Your task to perform on an android device: turn on translation in the chrome app Image 0: 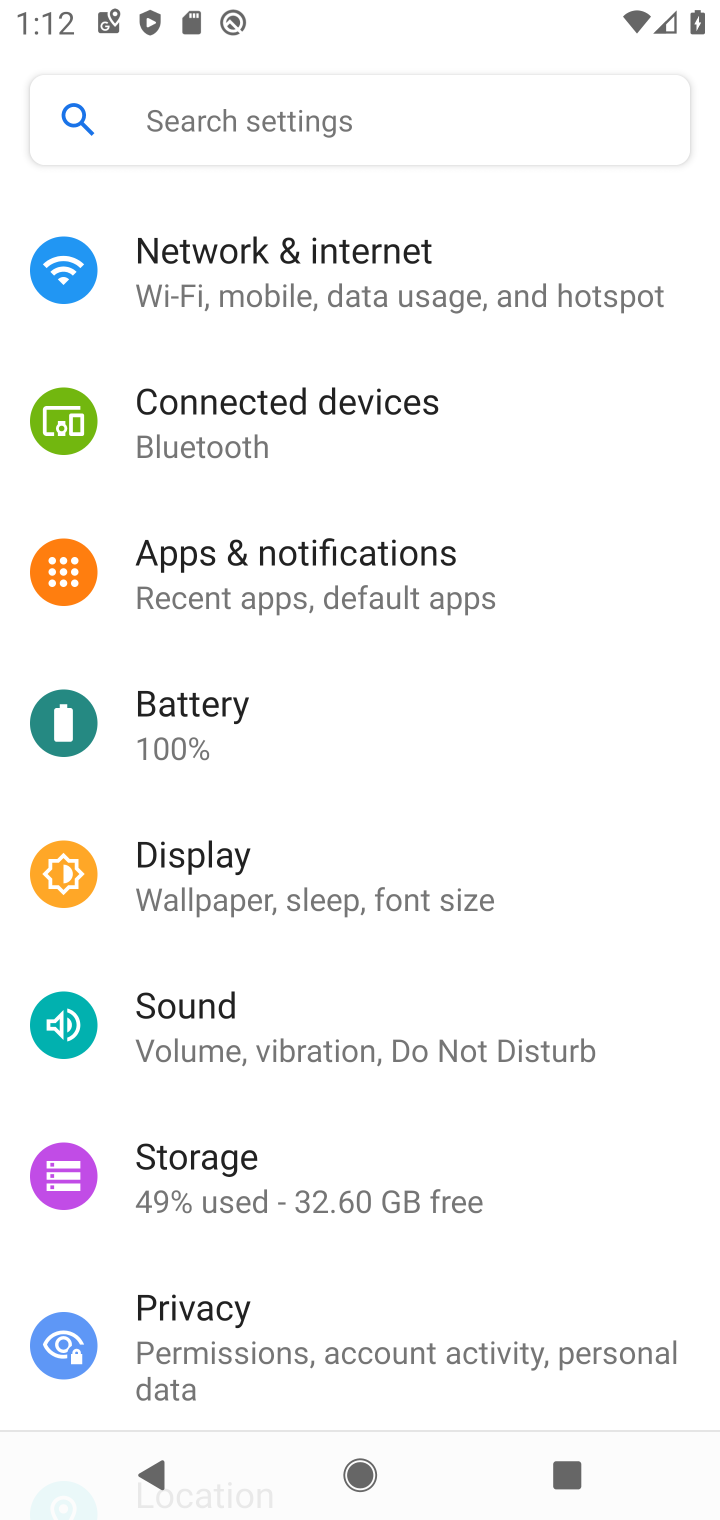
Step 0: press back button
Your task to perform on an android device: turn on translation in the chrome app Image 1: 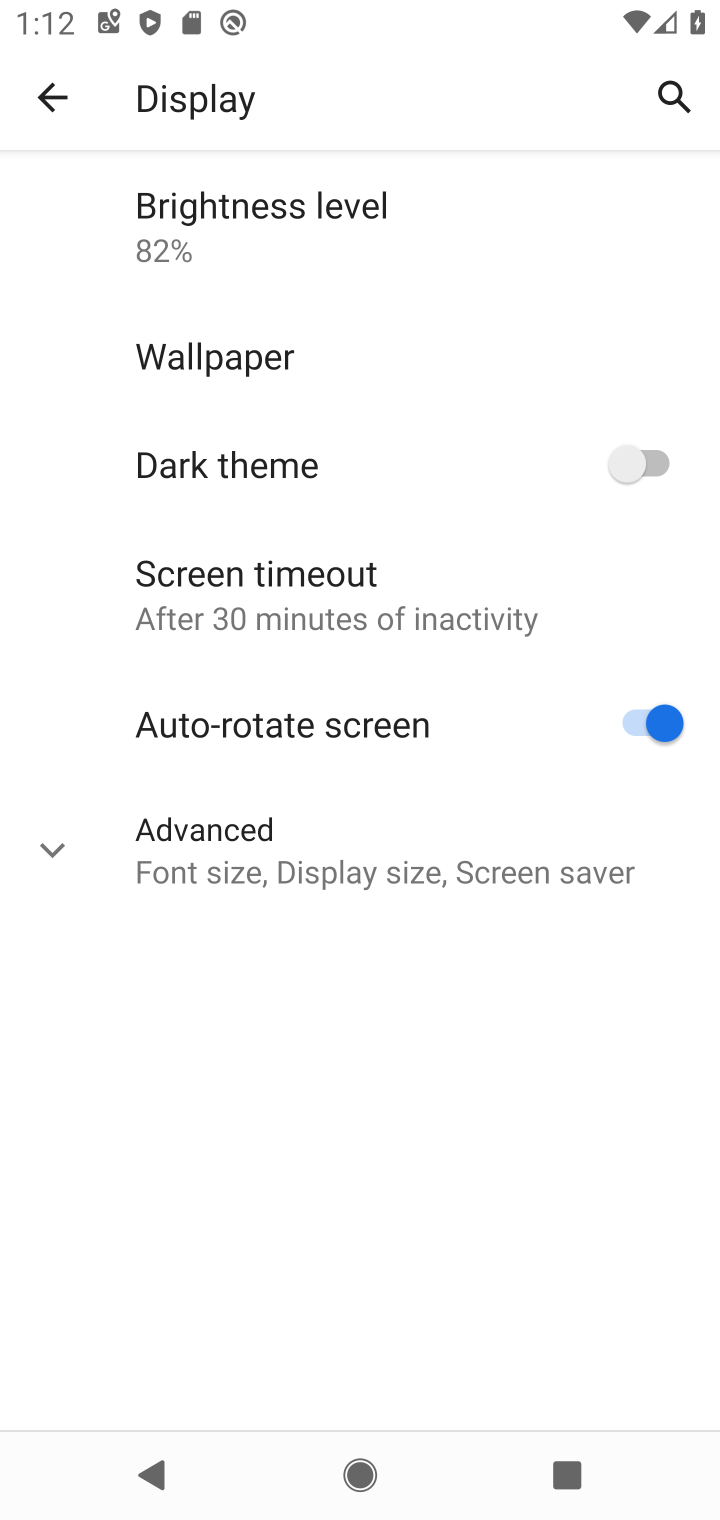
Step 1: press back button
Your task to perform on an android device: turn on translation in the chrome app Image 2: 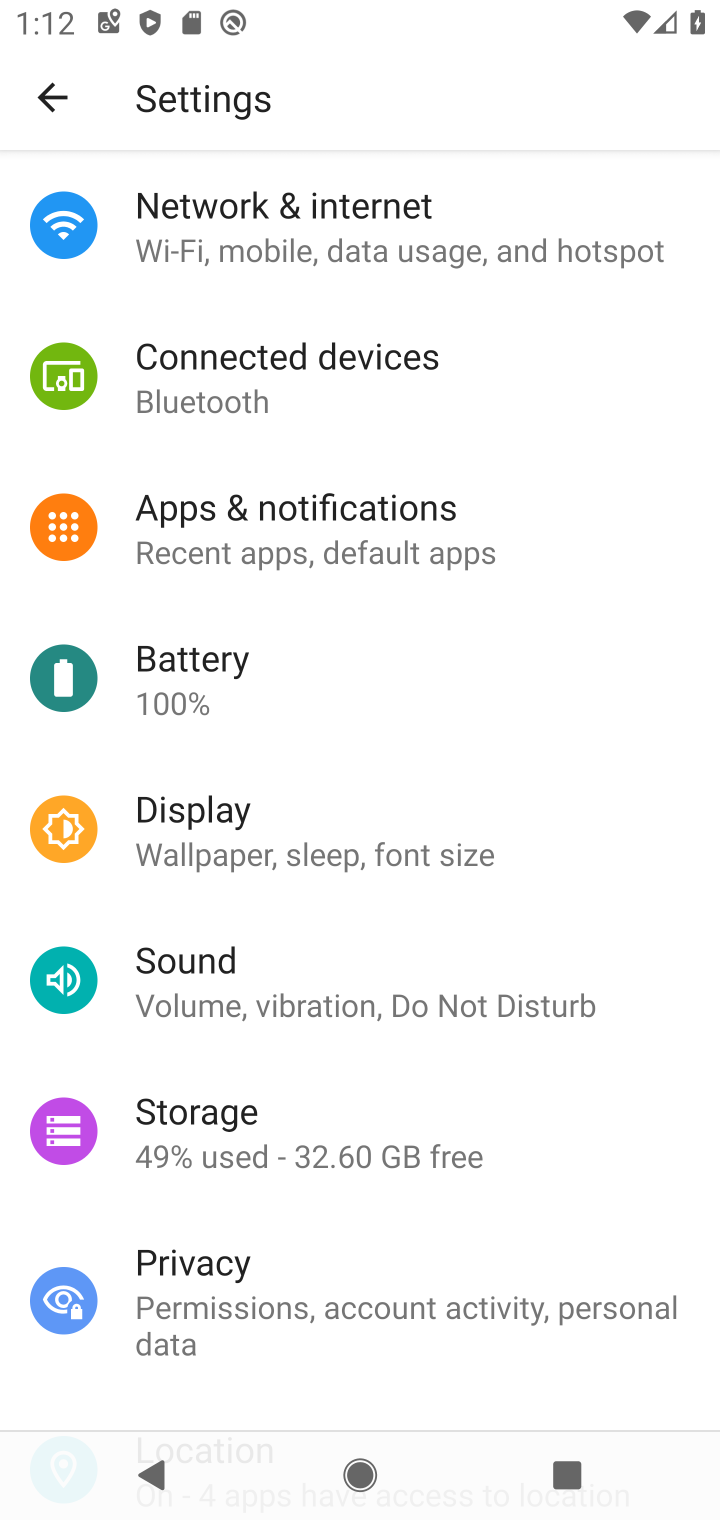
Step 2: press back button
Your task to perform on an android device: turn on translation in the chrome app Image 3: 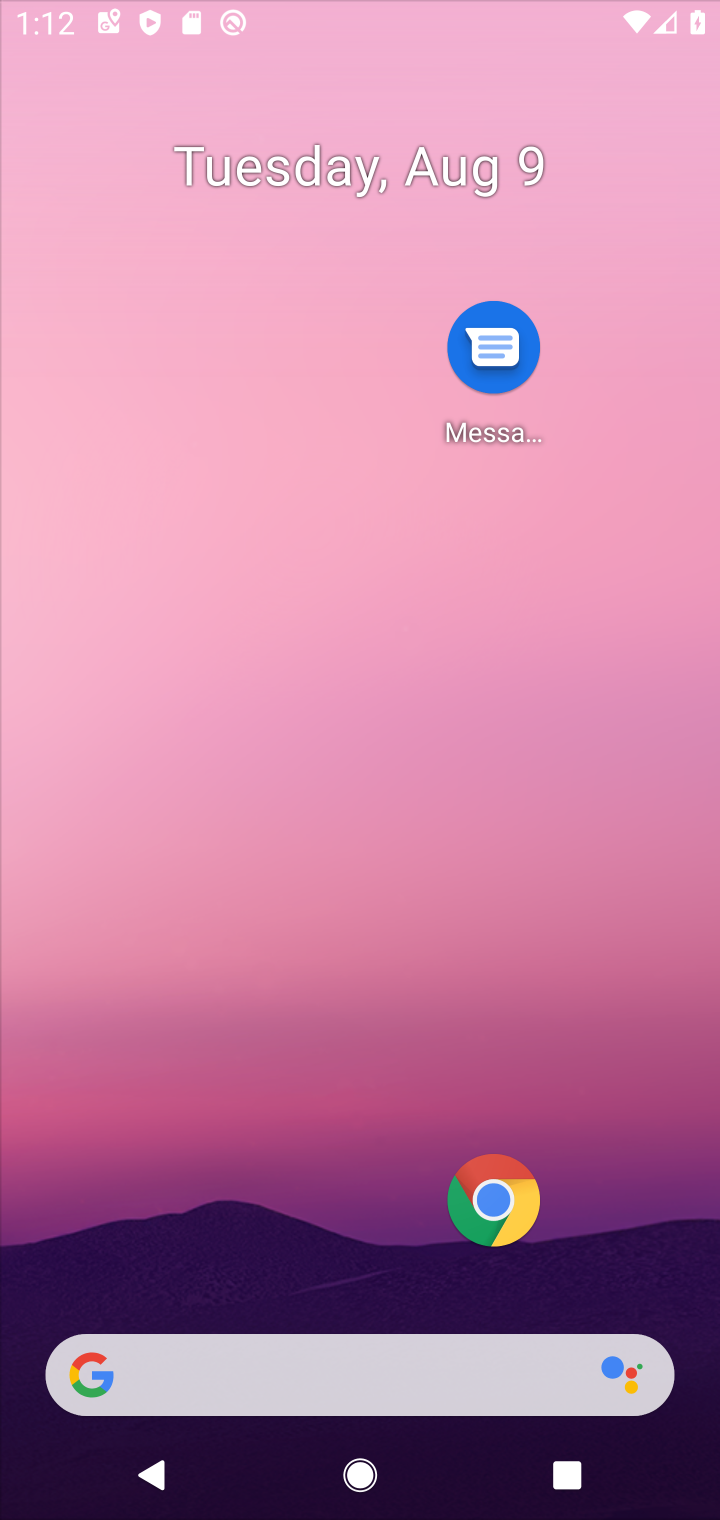
Step 3: press back button
Your task to perform on an android device: turn on translation in the chrome app Image 4: 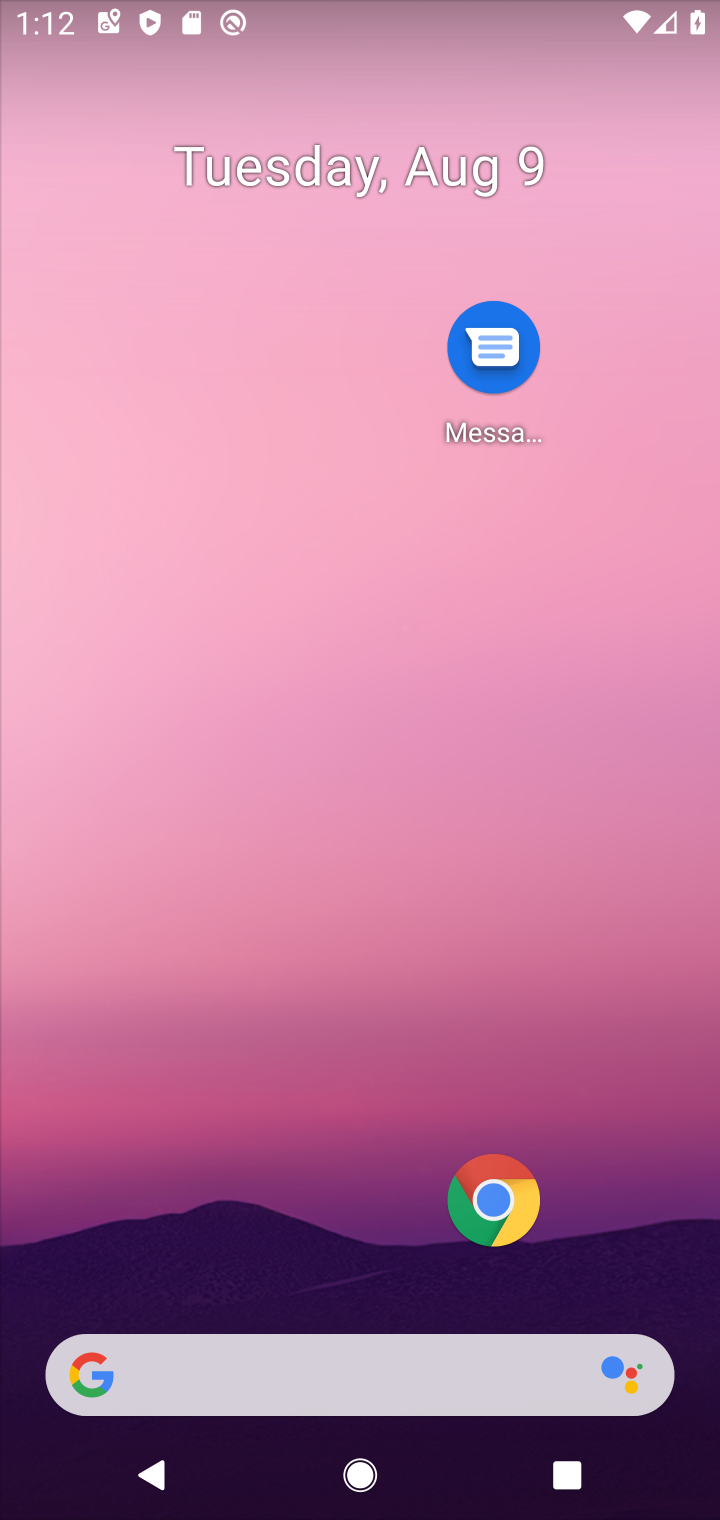
Step 4: click (482, 1184)
Your task to perform on an android device: turn on translation in the chrome app Image 5: 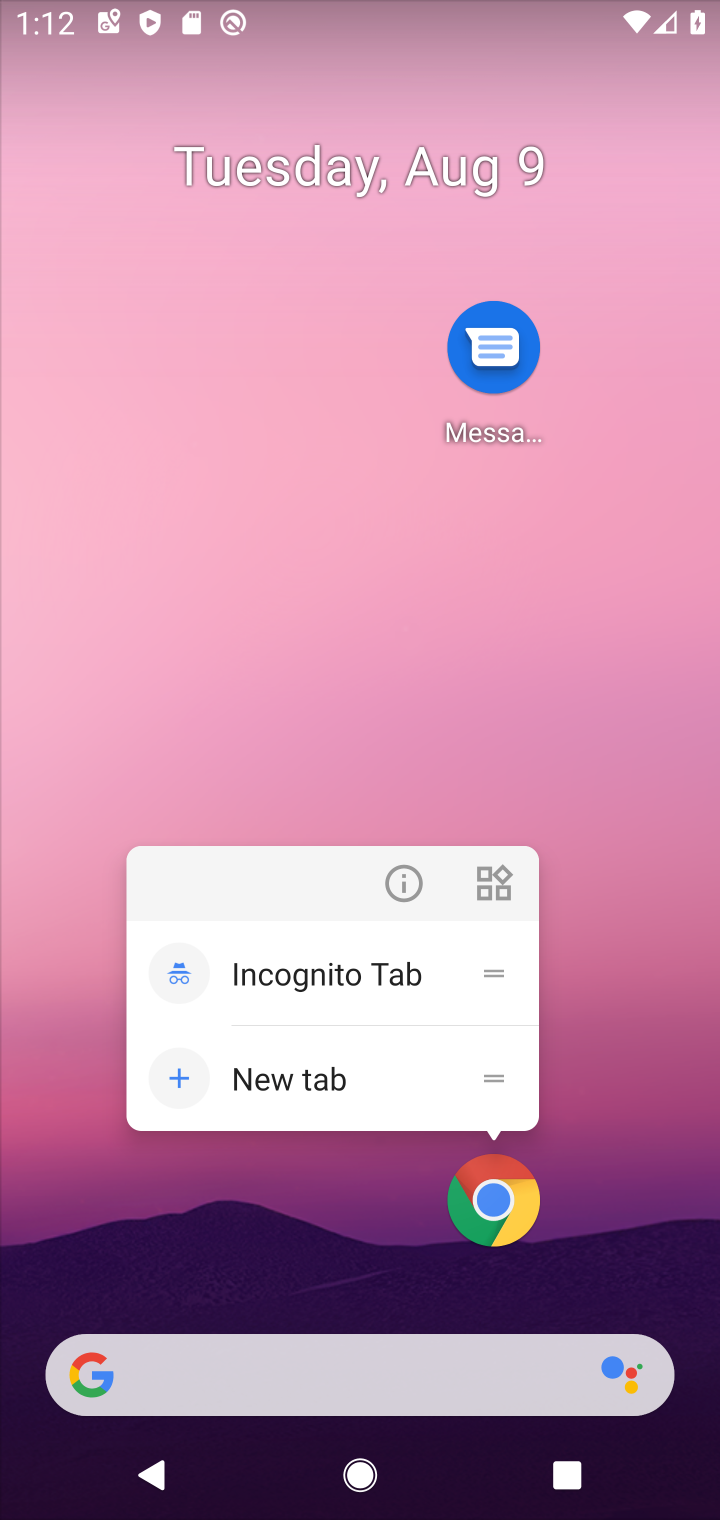
Step 5: click (504, 1201)
Your task to perform on an android device: turn on translation in the chrome app Image 6: 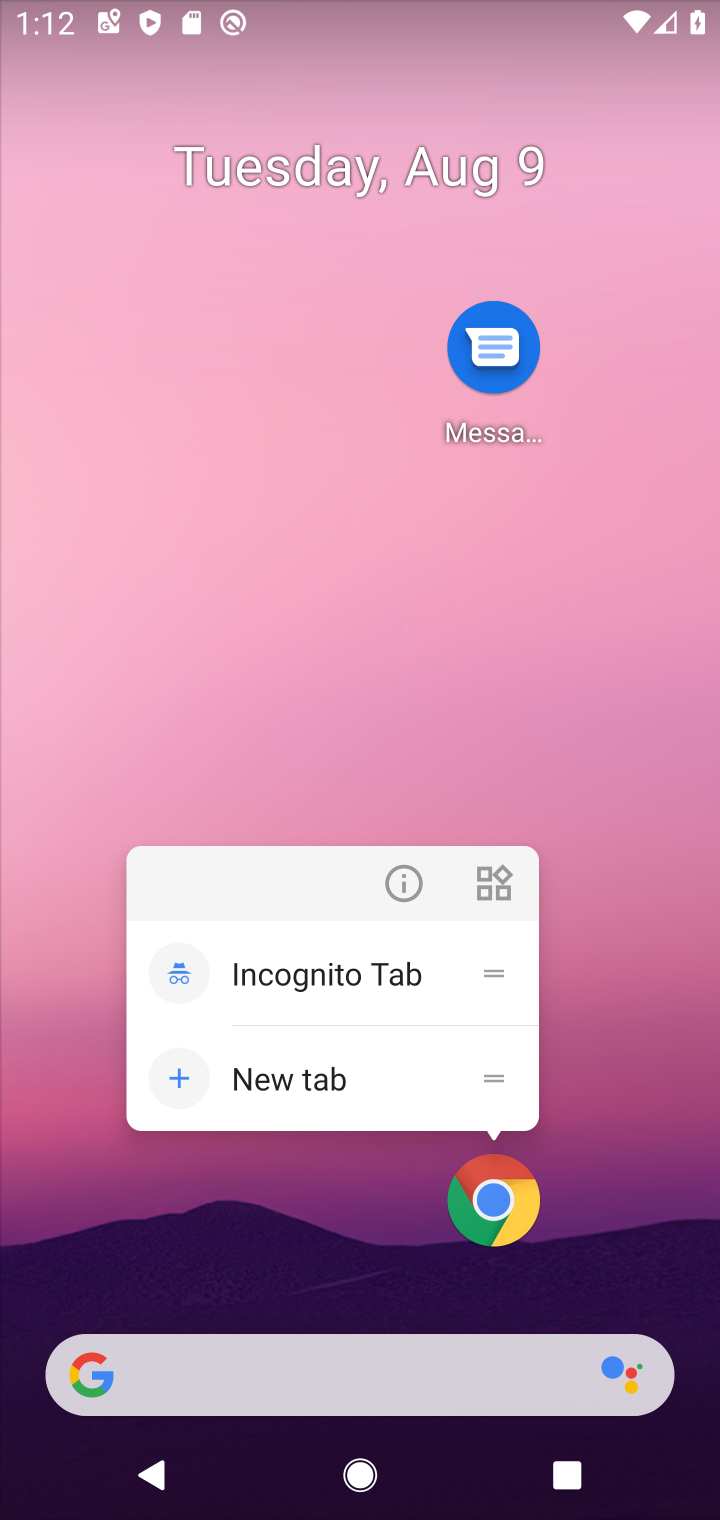
Step 6: click (500, 1191)
Your task to perform on an android device: turn on translation in the chrome app Image 7: 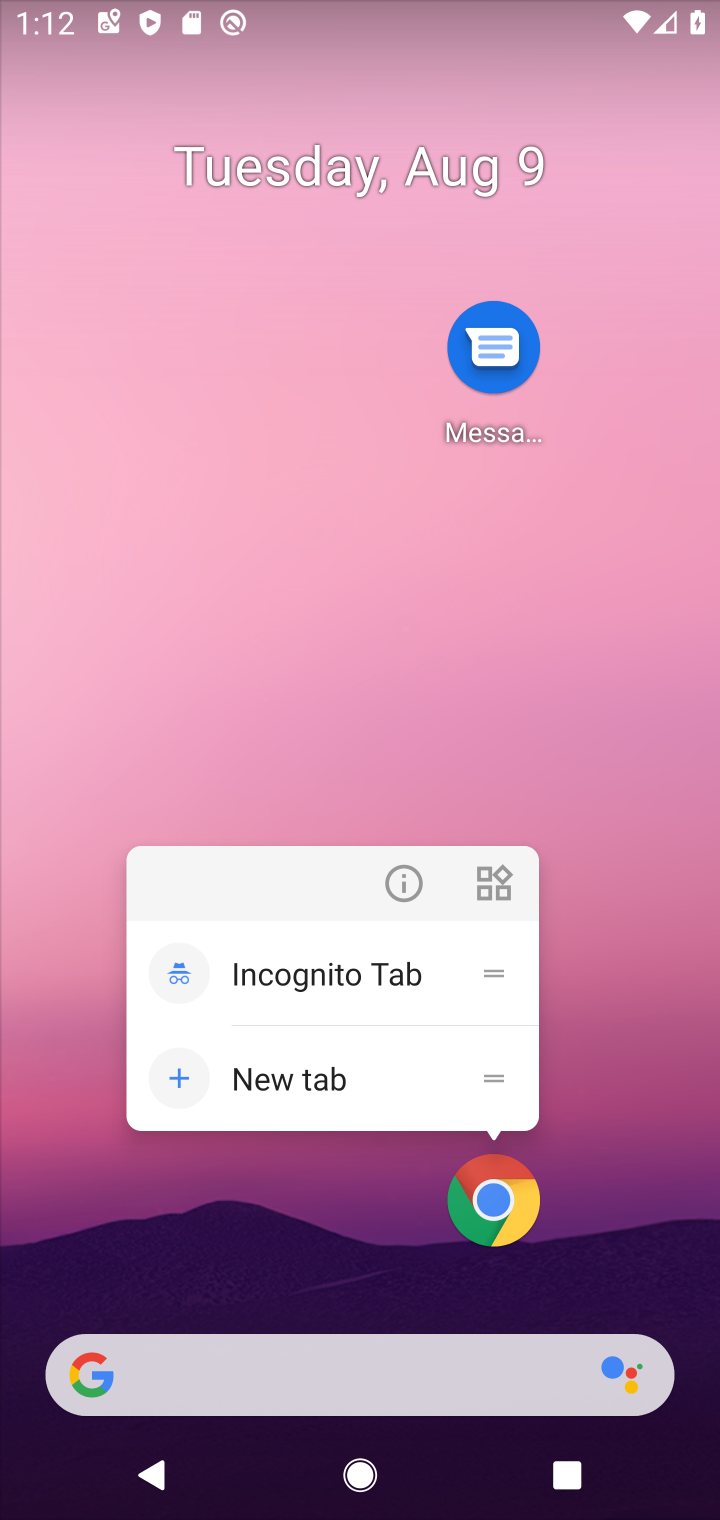
Step 7: click (500, 1213)
Your task to perform on an android device: turn on translation in the chrome app Image 8: 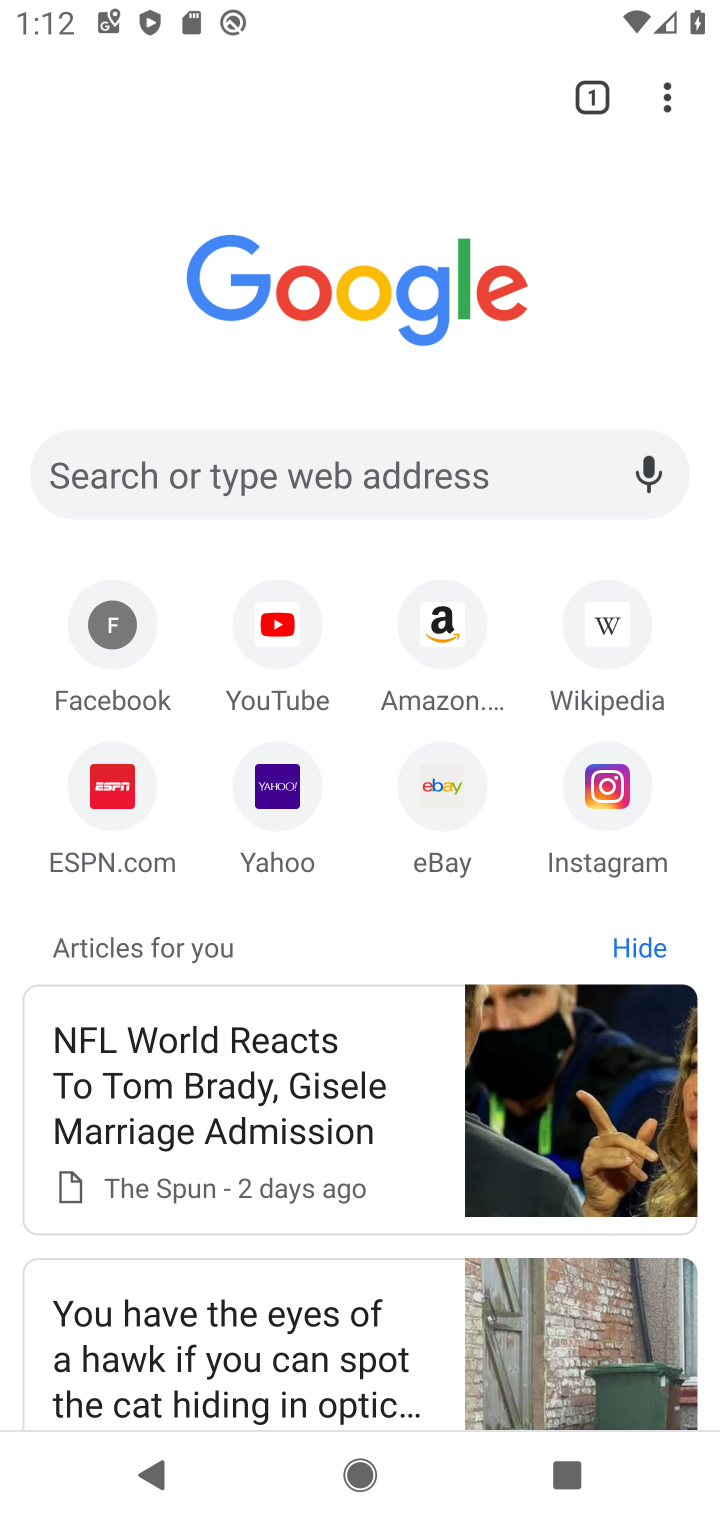
Step 8: drag from (669, 72) to (318, 825)
Your task to perform on an android device: turn on translation in the chrome app Image 9: 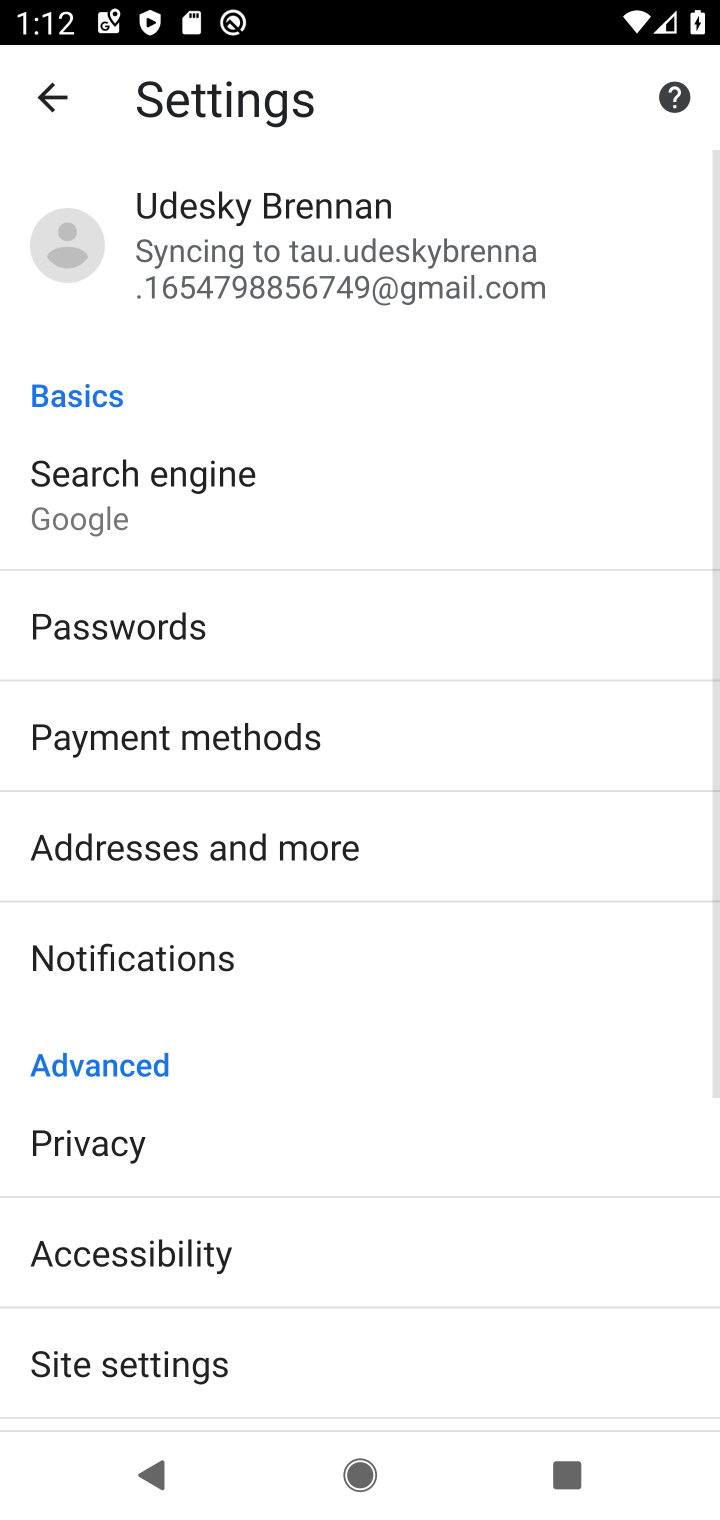
Step 9: drag from (193, 1289) to (396, 149)
Your task to perform on an android device: turn on translation in the chrome app Image 10: 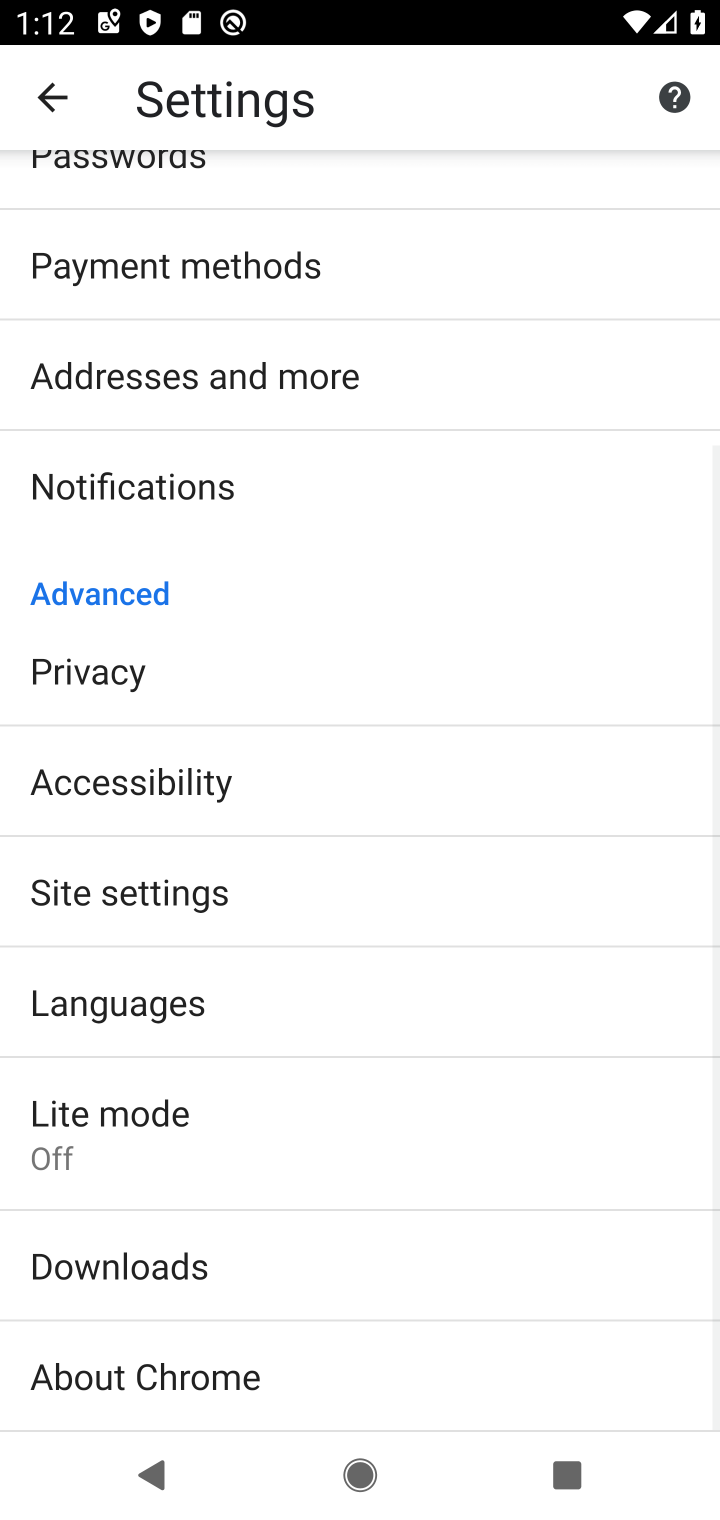
Step 10: click (201, 1003)
Your task to perform on an android device: turn on translation in the chrome app Image 11: 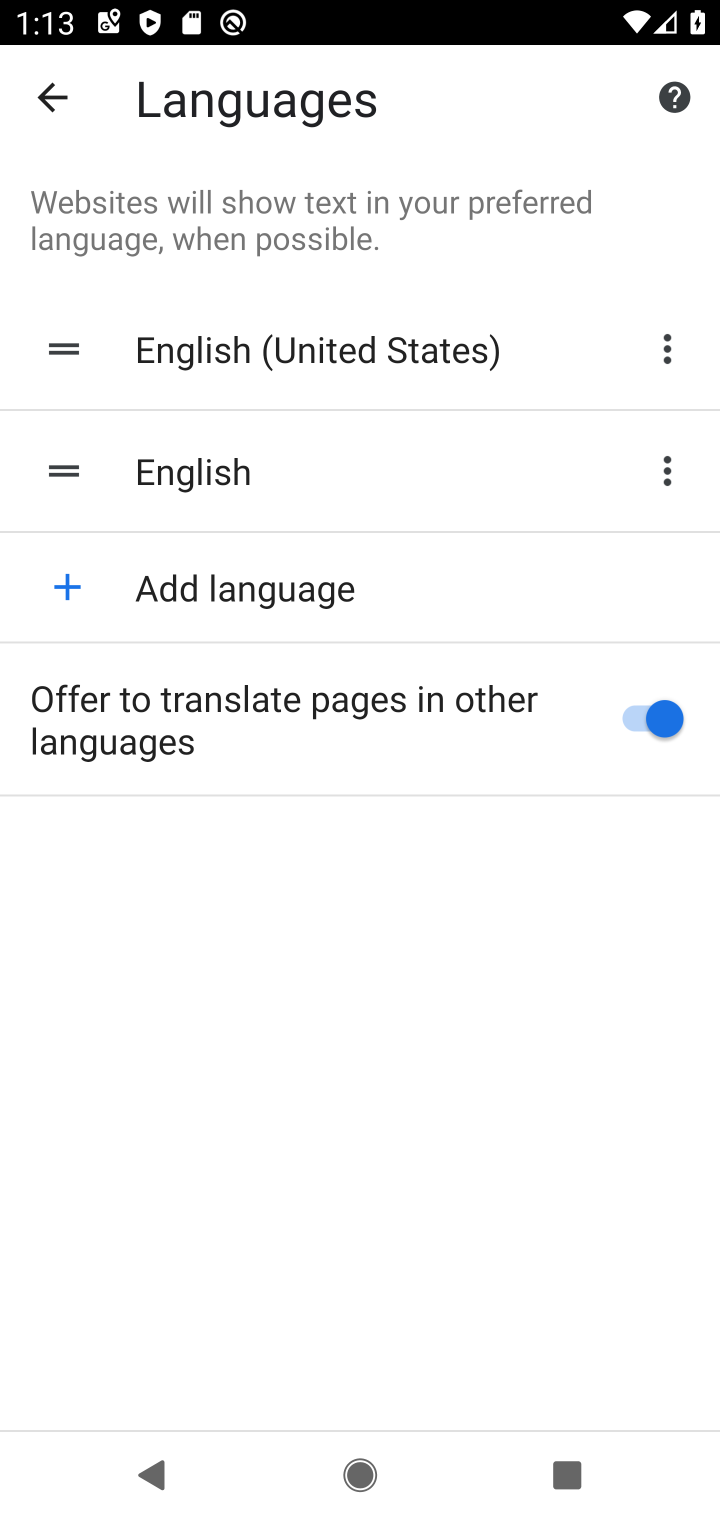
Step 11: task complete